Your task to perform on an android device: check android version Image 0: 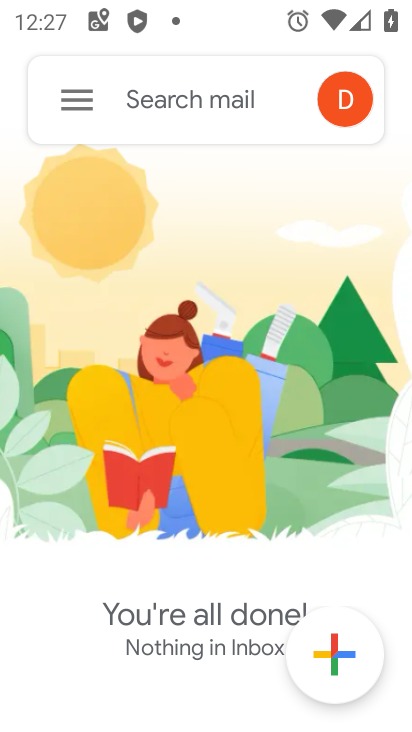
Step 0: press home button
Your task to perform on an android device: check android version Image 1: 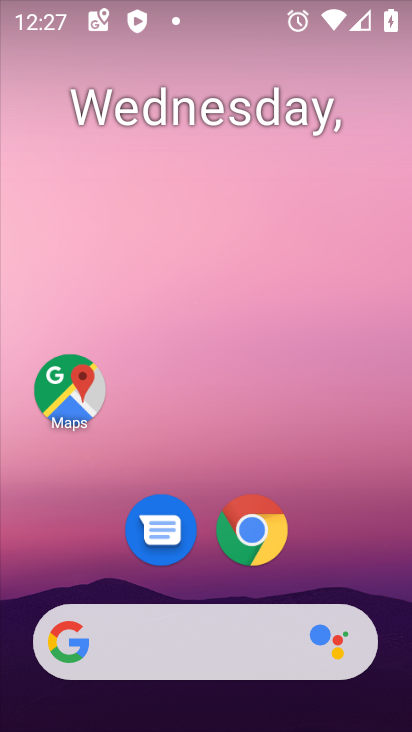
Step 1: drag from (206, 540) to (286, 181)
Your task to perform on an android device: check android version Image 2: 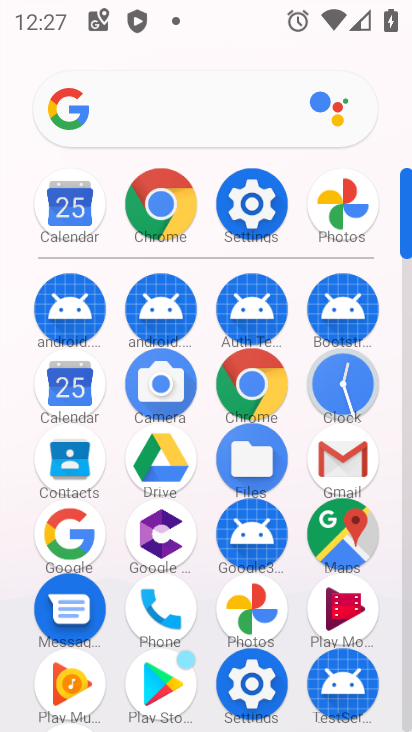
Step 2: click (260, 206)
Your task to perform on an android device: check android version Image 3: 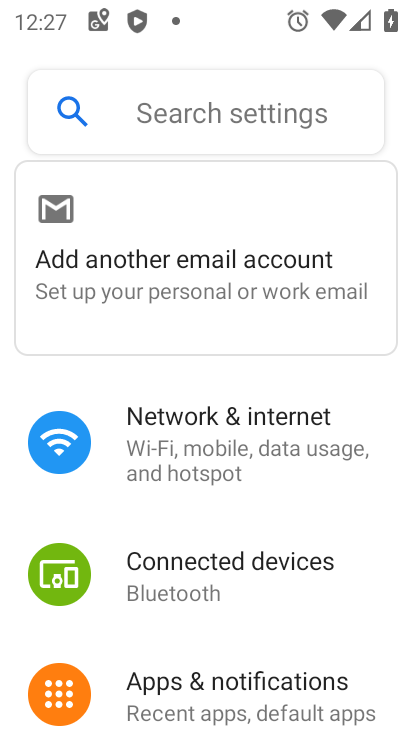
Step 3: drag from (264, 602) to (375, 126)
Your task to perform on an android device: check android version Image 4: 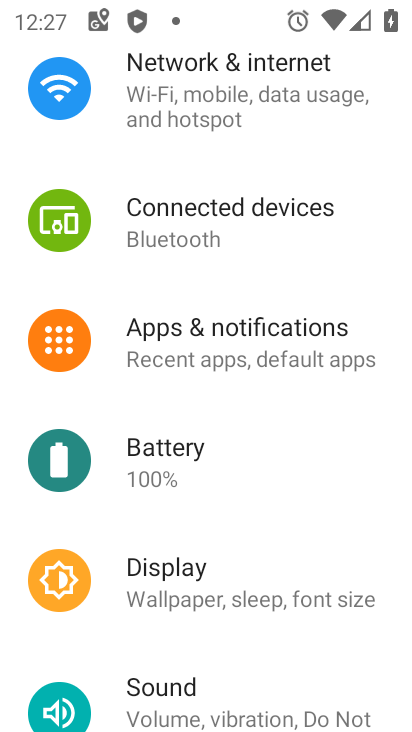
Step 4: drag from (249, 692) to (314, 256)
Your task to perform on an android device: check android version Image 5: 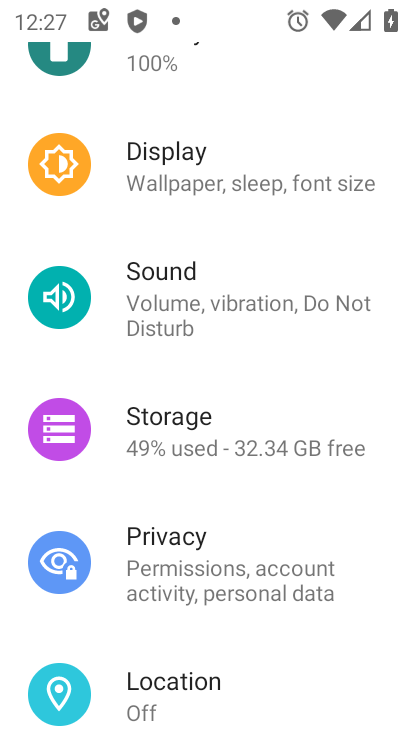
Step 5: drag from (261, 666) to (378, 197)
Your task to perform on an android device: check android version Image 6: 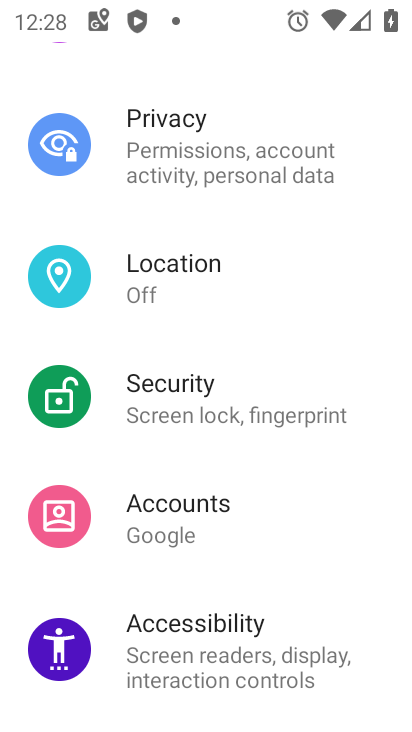
Step 6: drag from (274, 677) to (358, 238)
Your task to perform on an android device: check android version Image 7: 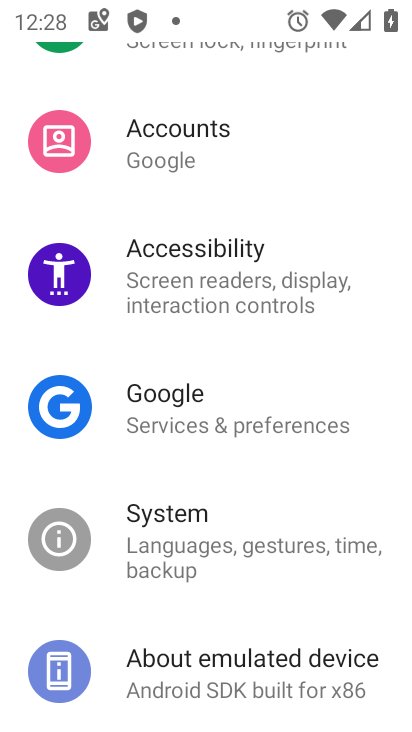
Step 7: click (245, 677)
Your task to perform on an android device: check android version Image 8: 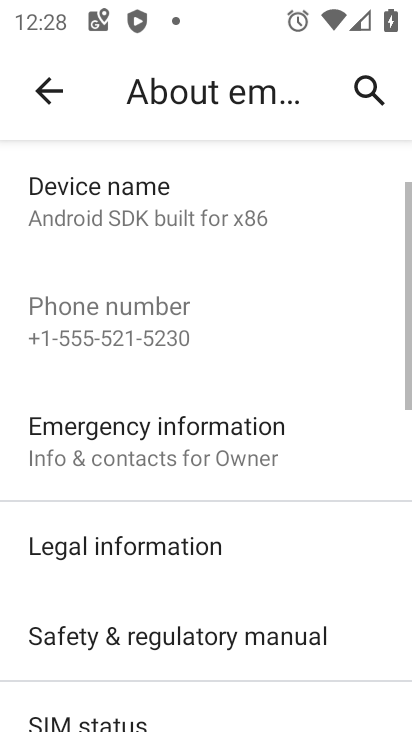
Step 8: drag from (247, 588) to (298, 194)
Your task to perform on an android device: check android version Image 9: 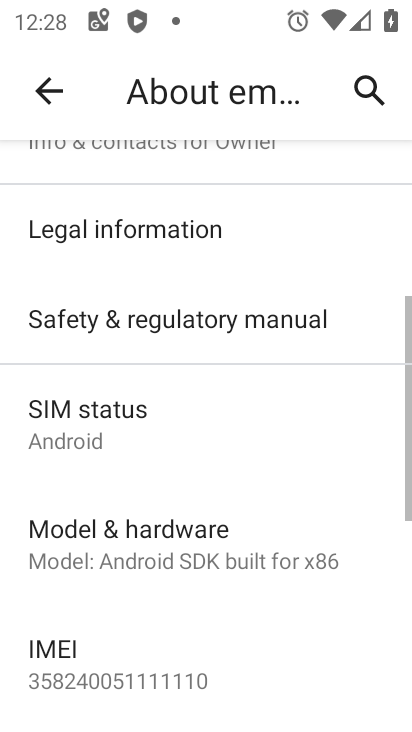
Step 9: drag from (222, 599) to (269, 292)
Your task to perform on an android device: check android version Image 10: 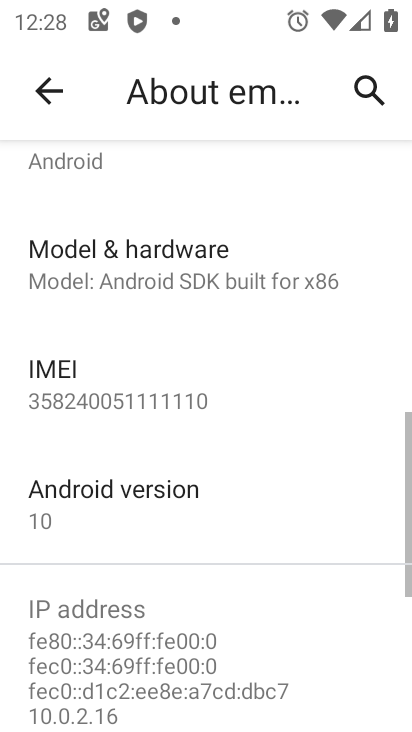
Step 10: click (137, 488)
Your task to perform on an android device: check android version Image 11: 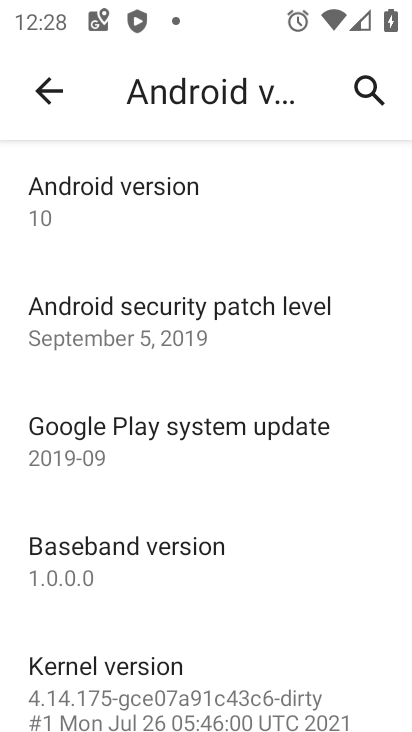
Step 11: task complete